Your task to perform on an android device: Open maps Image 0: 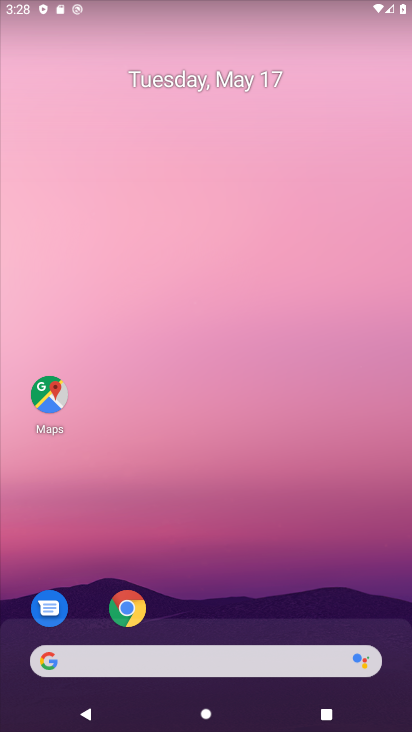
Step 0: click (51, 391)
Your task to perform on an android device: Open maps Image 1: 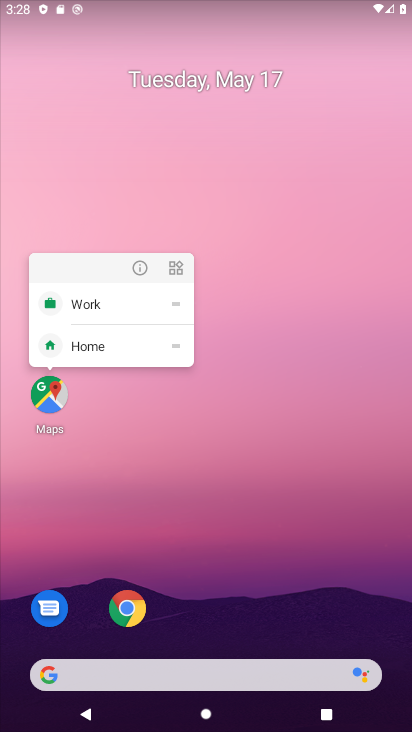
Step 1: click (48, 400)
Your task to perform on an android device: Open maps Image 2: 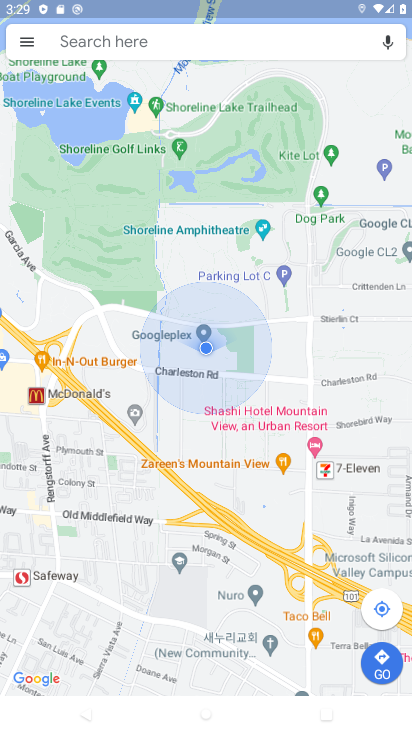
Step 2: task complete